Your task to perform on an android device: open sync settings in chrome Image 0: 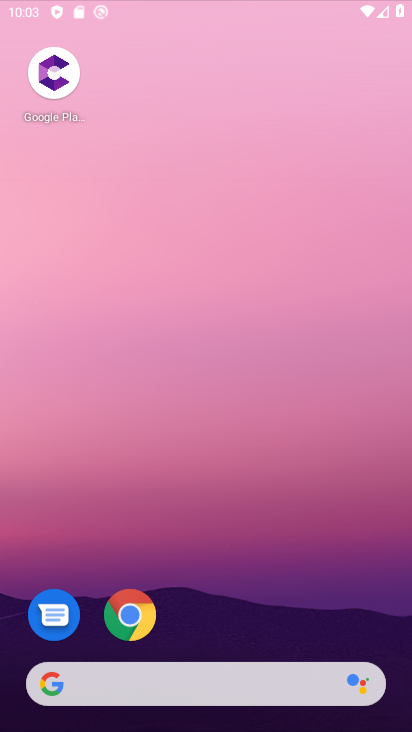
Step 0: click (213, 97)
Your task to perform on an android device: open sync settings in chrome Image 1: 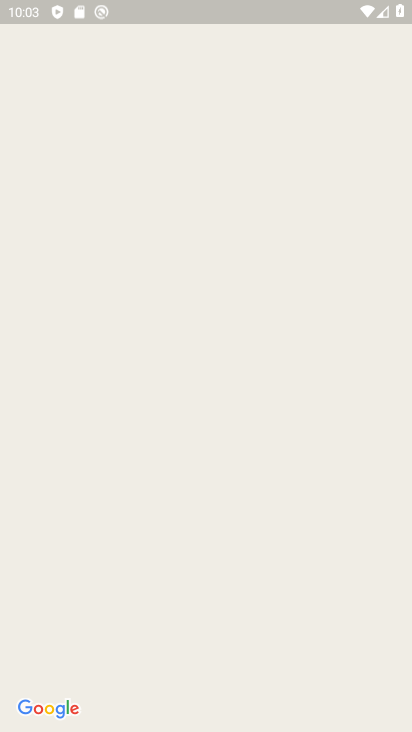
Step 1: press home button
Your task to perform on an android device: open sync settings in chrome Image 2: 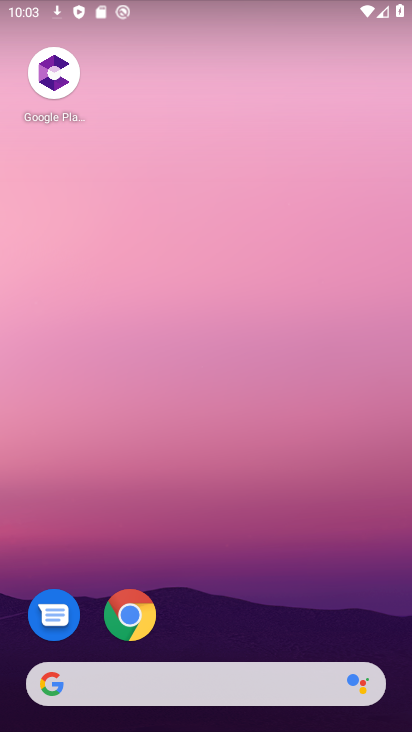
Step 2: drag from (212, 630) to (215, 126)
Your task to perform on an android device: open sync settings in chrome Image 3: 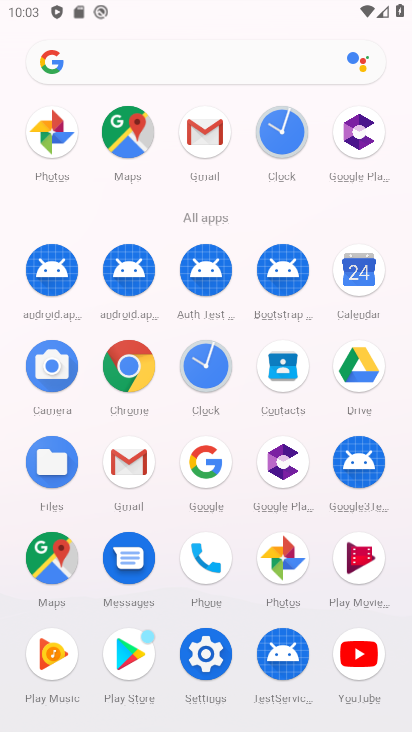
Step 3: click (126, 358)
Your task to perform on an android device: open sync settings in chrome Image 4: 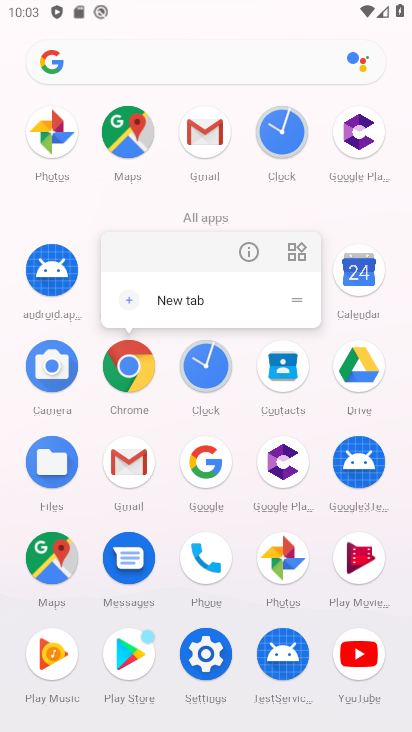
Step 4: click (127, 362)
Your task to perform on an android device: open sync settings in chrome Image 5: 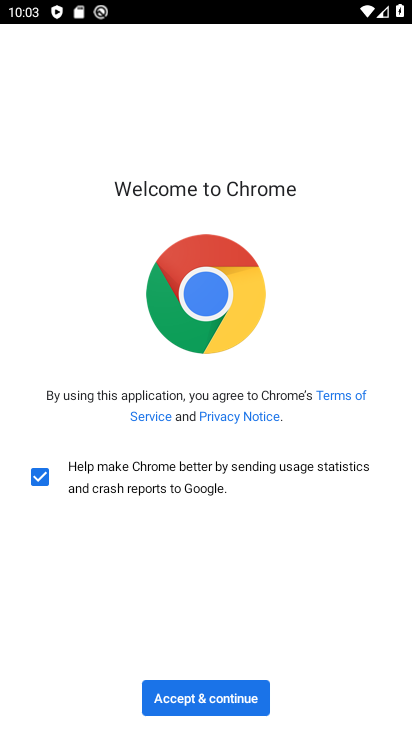
Step 5: click (199, 693)
Your task to perform on an android device: open sync settings in chrome Image 6: 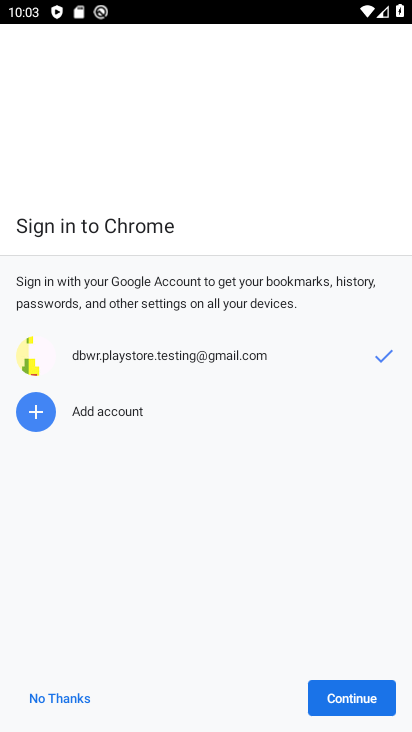
Step 6: click (352, 690)
Your task to perform on an android device: open sync settings in chrome Image 7: 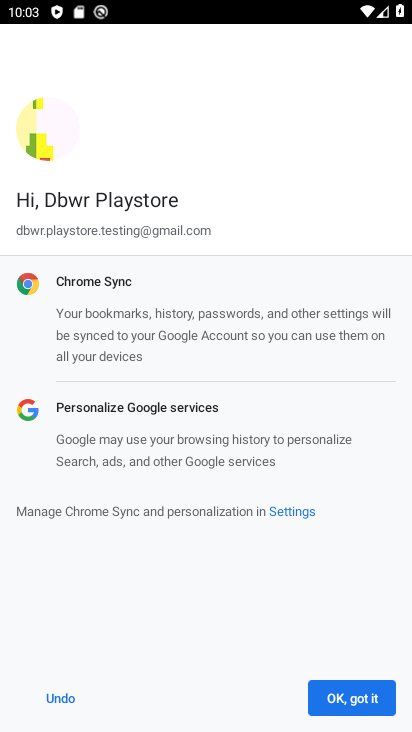
Step 7: click (347, 690)
Your task to perform on an android device: open sync settings in chrome Image 8: 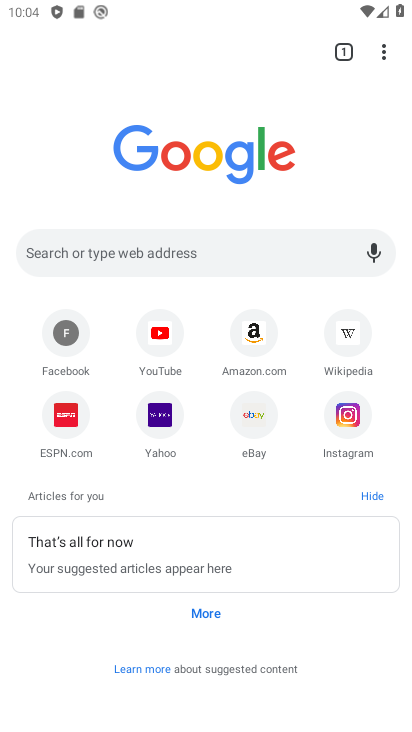
Step 8: click (381, 50)
Your task to perform on an android device: open sync settings in chrome Image 9: 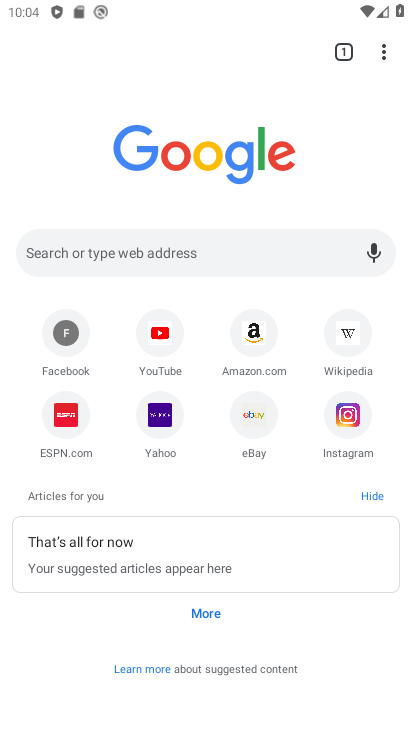
Step 9: click (386, 51)
Your task to perform on an android device: open sync settings in chrome Image 10: 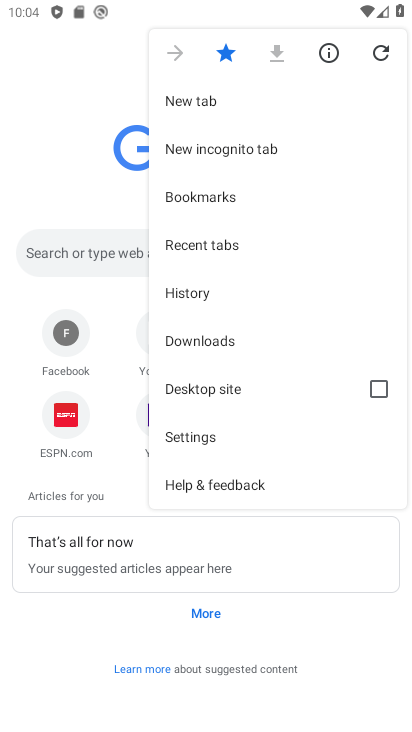
Step 10: click (221, 432)
Your task to perform on an android device: open sync settings in chrome Image 11: 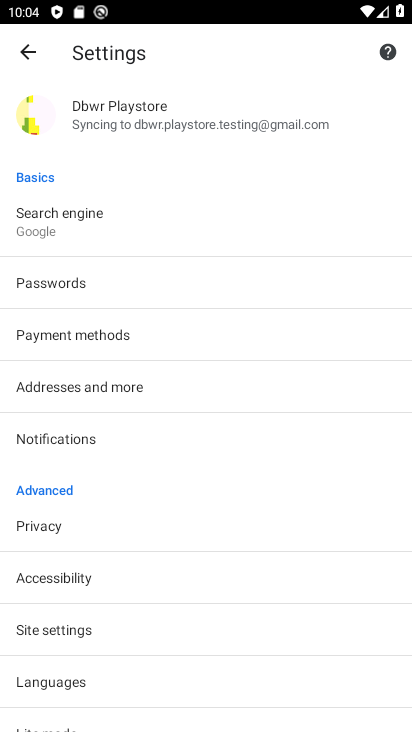
Step 11: click (171, 111)
Your task to perform on an android device: open sync settings in chrome Image 12: 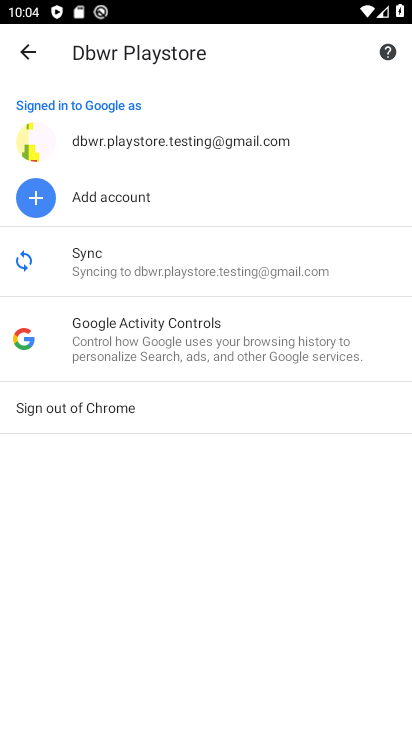
Step 12: click (133, 255)
Your task to perform on an android device: open sync settings in chrome Image 13: 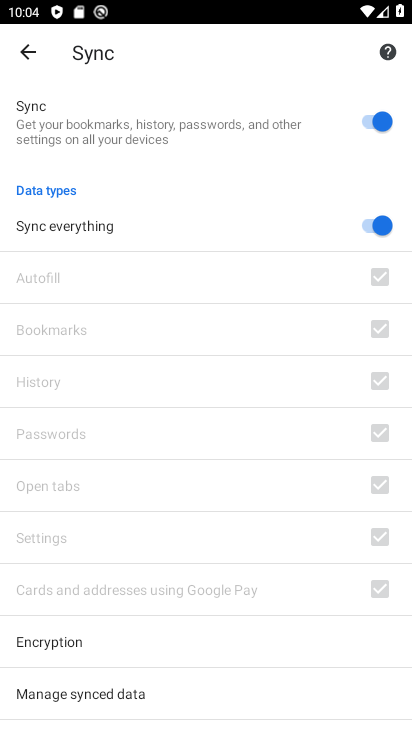
Step 13: task complete